Your task to perform on an android device: Turn on the flashlight Image 0: 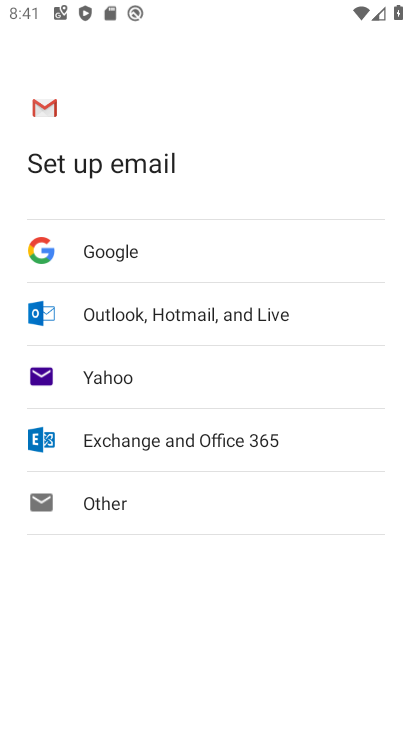
Step 0: press home button
Your task to perform on an android device: Turn on the flashlight Image 1: 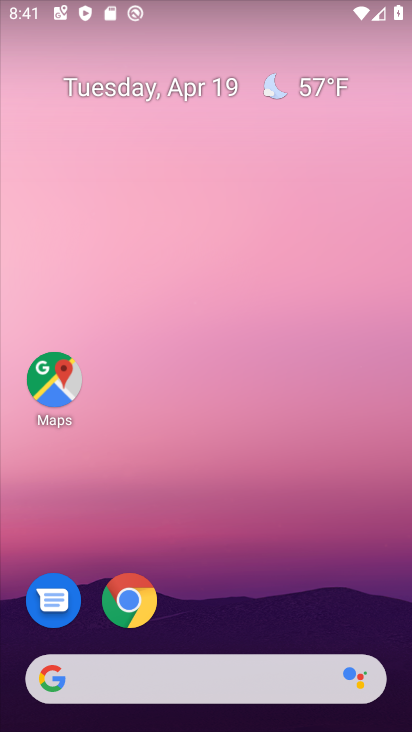
Step 1: drag from (261, 158) to (278, 287)
Your task to perform on an android device: Turn on the flashlight Image 2: 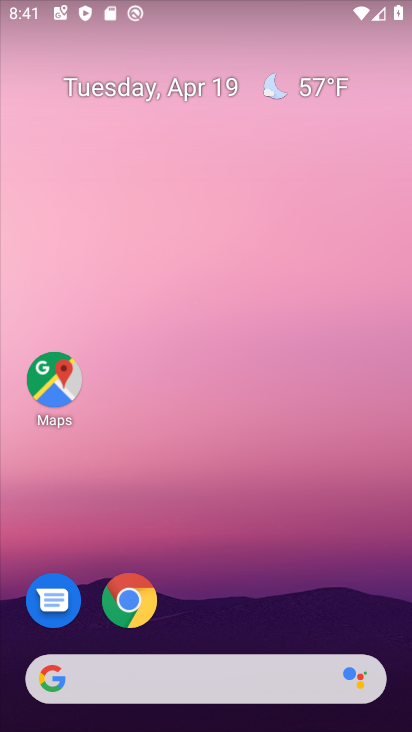
Step 2: drag from (239, 6) to (255, 388)
Your task to perform on an android device: Turn on the flashlight Image 3: 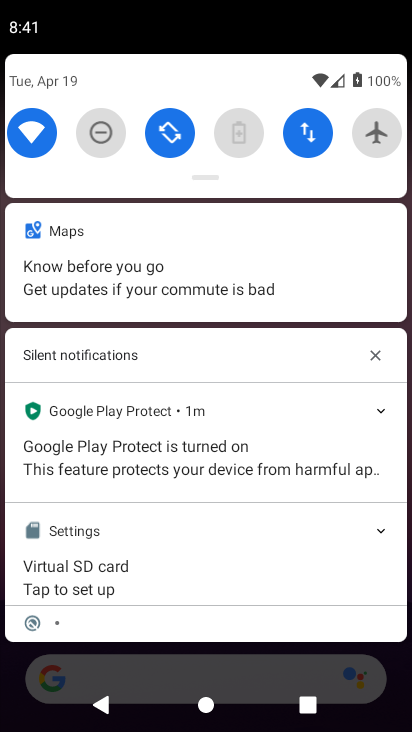
Step 3: drag from (273, 94) to (267, 362)
Your task to perform on an android device: Turn on the flashlight Image 4: 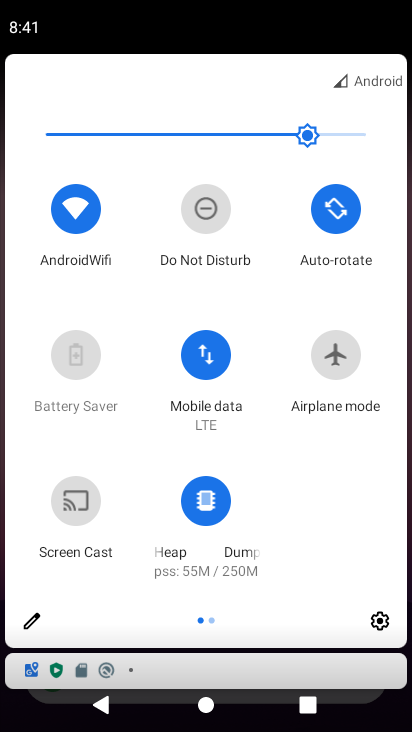
Step 4: click (31, 625)
Your task to perform on an android device: Turn on the flashlight Image 5: 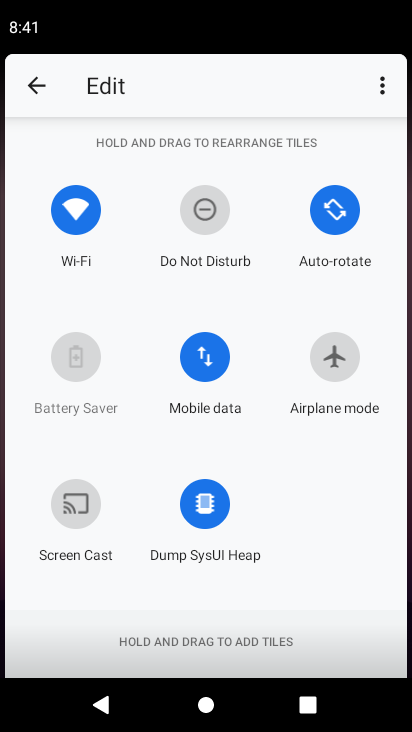
Step 5: task complete